Your task to perform on an android device: Go to internet settings Image 0: 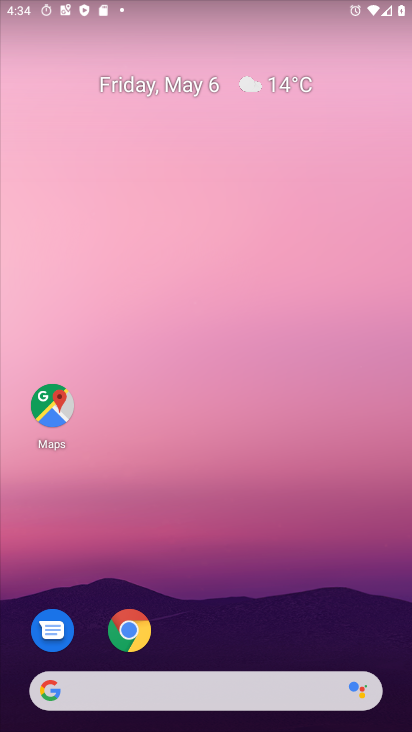
Step 0: drag from (188, 652) to (363, 1)
Your task to perform on an android device: Go to internet settings Image 1: 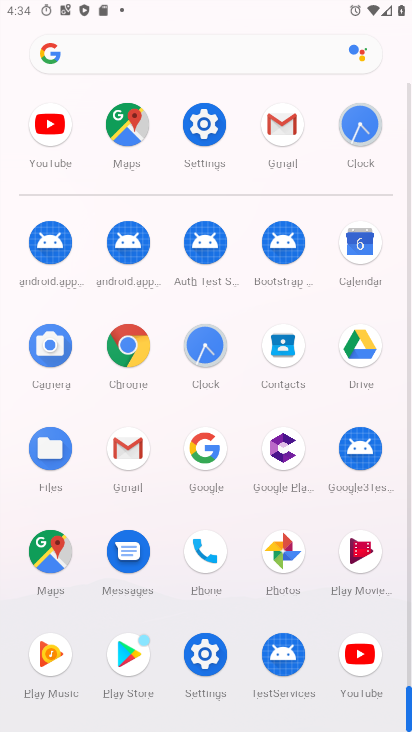
Step 1: click (214, 139)
Your task to perform on an android device: Go to internet settings Image 2: 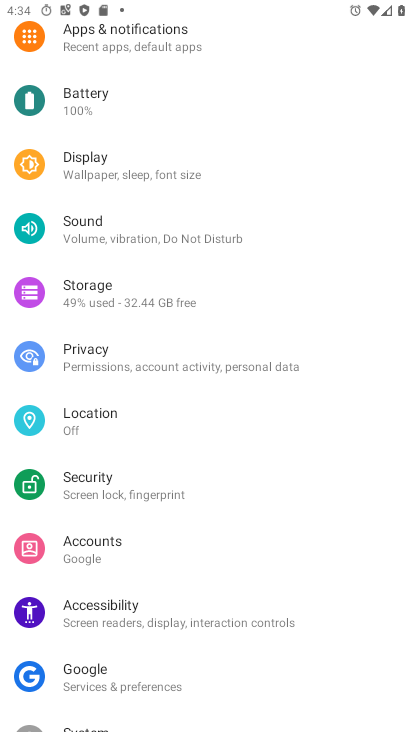
Step 2: drag from (126, 88) to (53, 730)
Your task to perform on an android device: Go to internet settings Image 3: 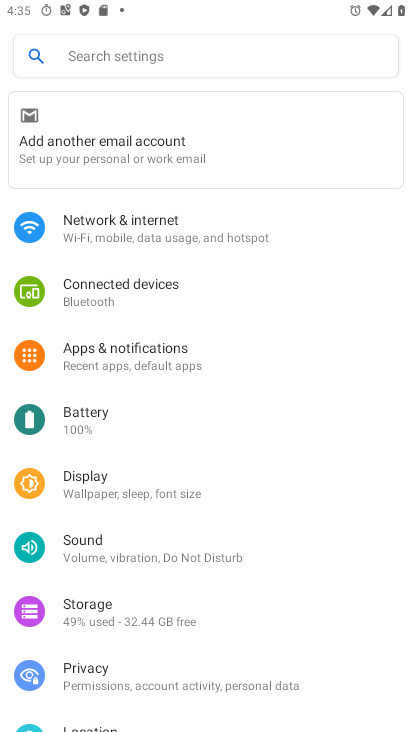
Step 3: click (163, 227)
Your task to perform on an android device: Go to internet settings Image 4: 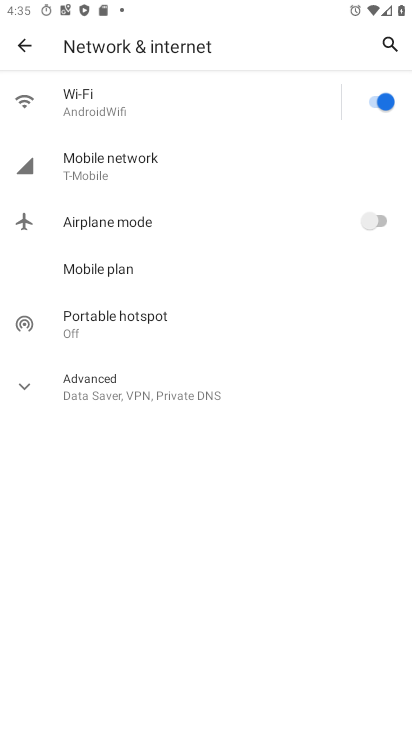
Step 4: click (220, 145)
Your task to perform on an android device: Go to internet settings Image 5: 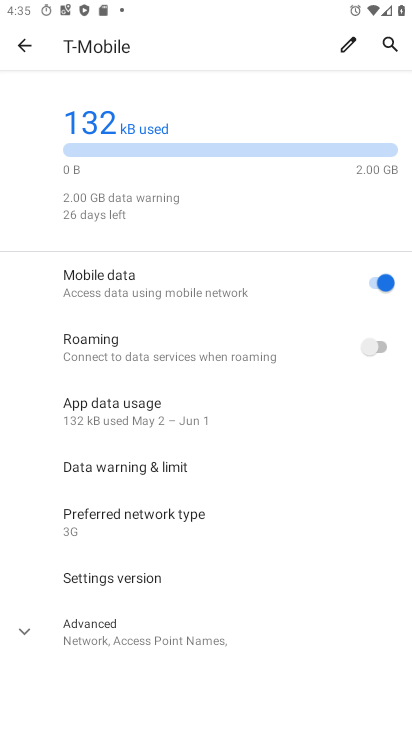
Step 5: task complete